Your task to perform on an android device: Open the web browser Image 0: 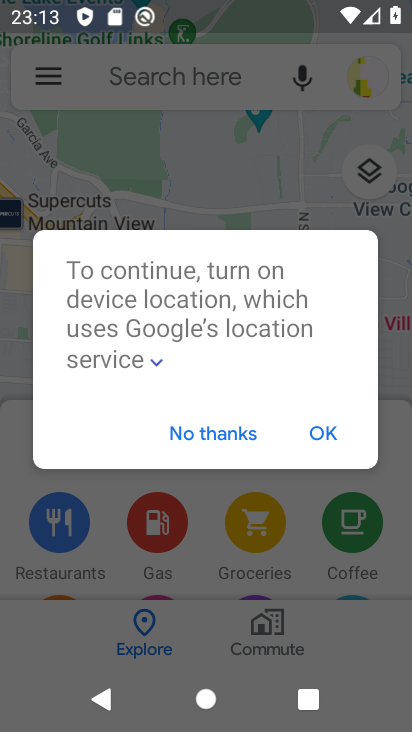
Step 0: press home button
Your task to perform on an android device: Open the web browser Image 1: 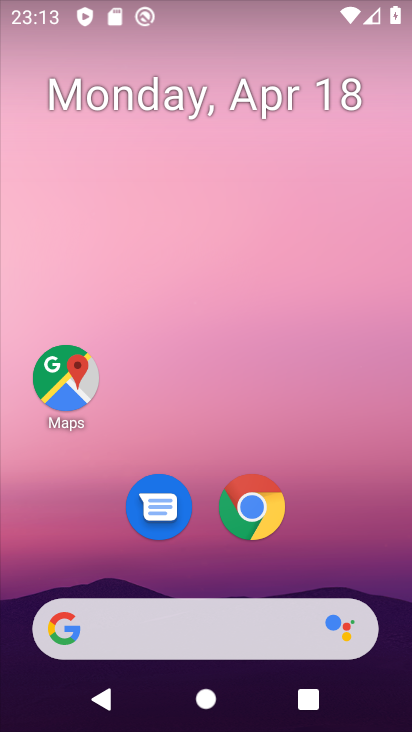
Step 1: click (259, 511)
Your task to perform on an android device: Open the web browser Image 2: 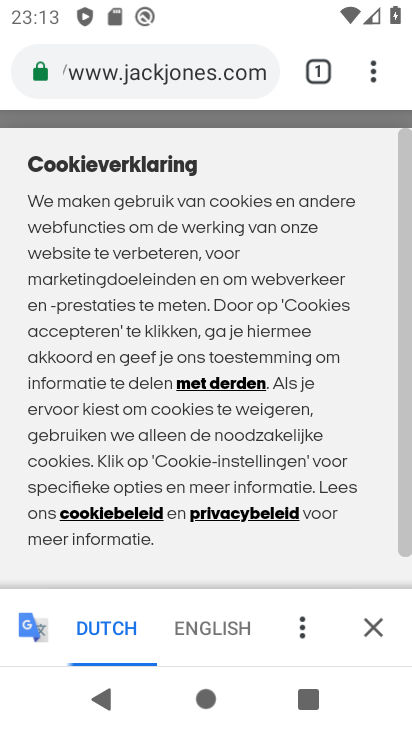
Step 2: task complete